Your task to perform on an android device: see sites visited before in the chrome app Image 0: 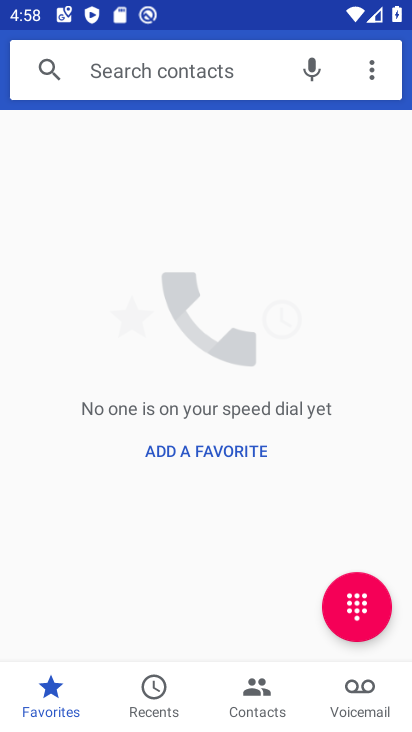
Step 0: press home button
Your task to perform on an android device: see sites visited before in the chrome app Image 1: 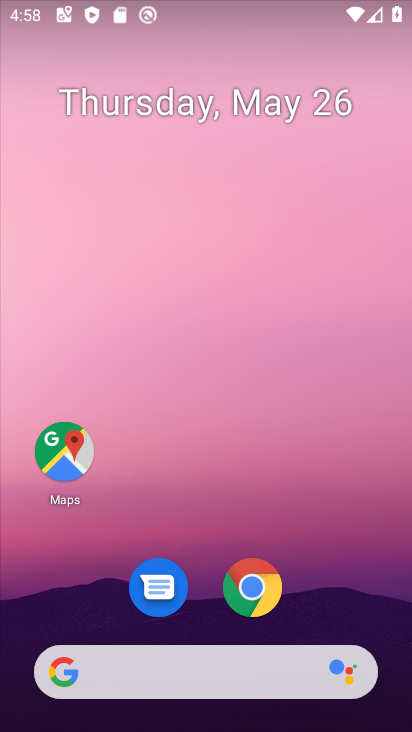
Step 1: click (251, 588)
Your task to perform on an android device: see sites visited before in the chrome app Image 2: 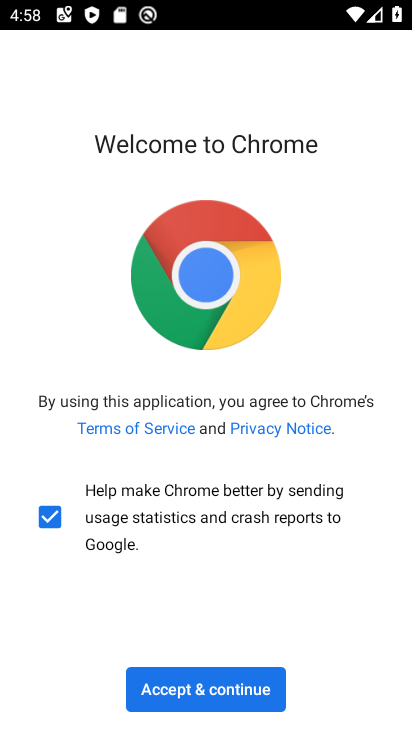
Step 2: click (196, 681)
Your task to perform on an android device: see sites visited before in the chrome app Image 3: 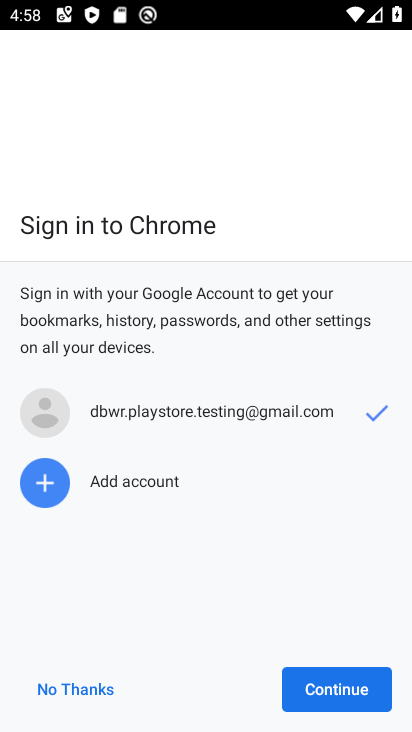
Step 3: click (314, 686)
Your task to perform on an android device: see sites visited before in the chrome app Image 4: 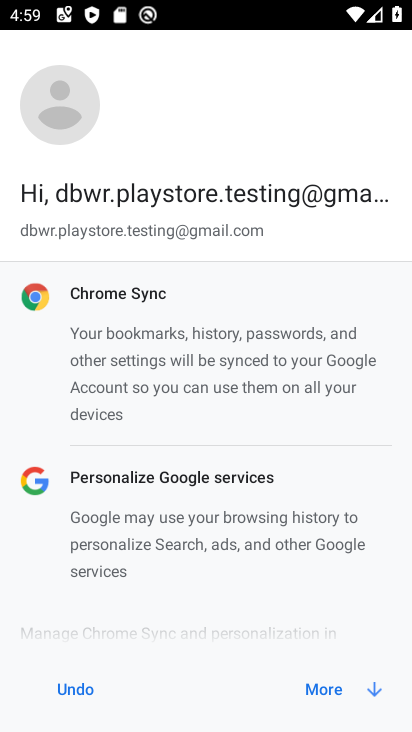
Step 4: click (314, 686)
Your task to perform on an android device: see sites visited before in the chrome app Image 5: 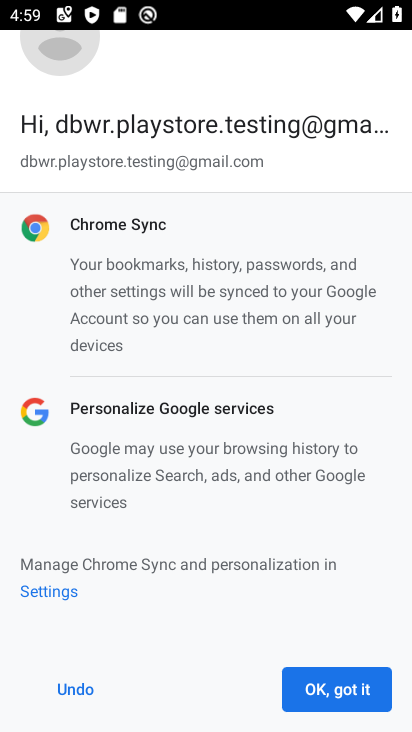
Step 5: click (314, 686)
Your task to perform on an android device: see sites visited before in the chrome app Image 6: 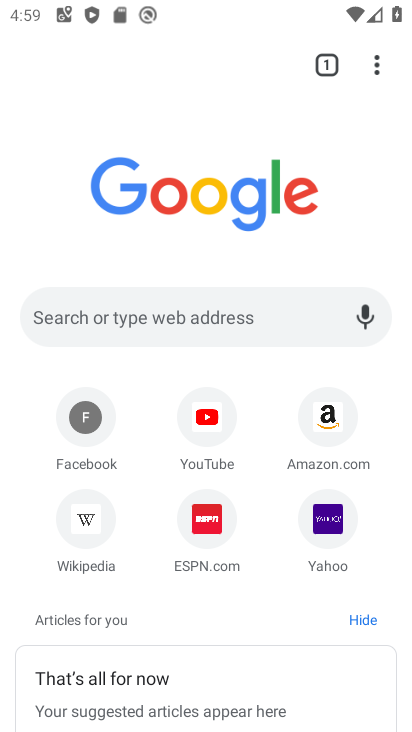
Step 6: click (377, 64)
Your task to perform on an android device: see sites visited before in the chrome app Image 7: 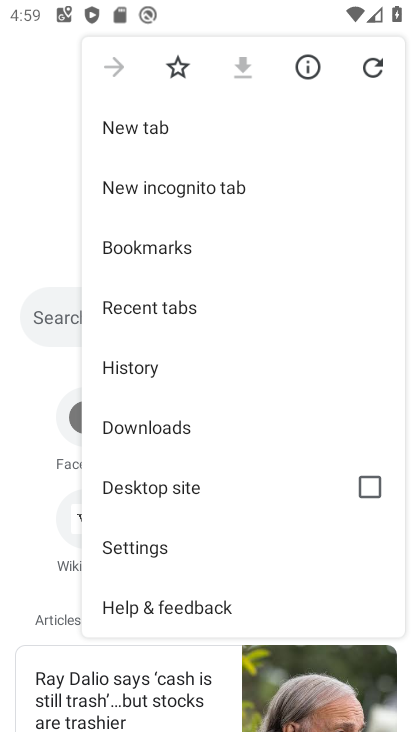
Step 7: click (125, 541)
Your task to perform on an android device: see sites visited before in the chrome app Image 8: 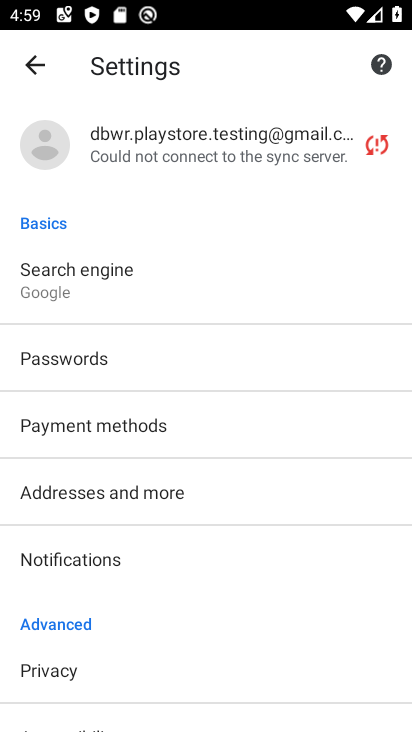
Step 8: task complete